Your task to perform on an android device: turn on location history Image 0: 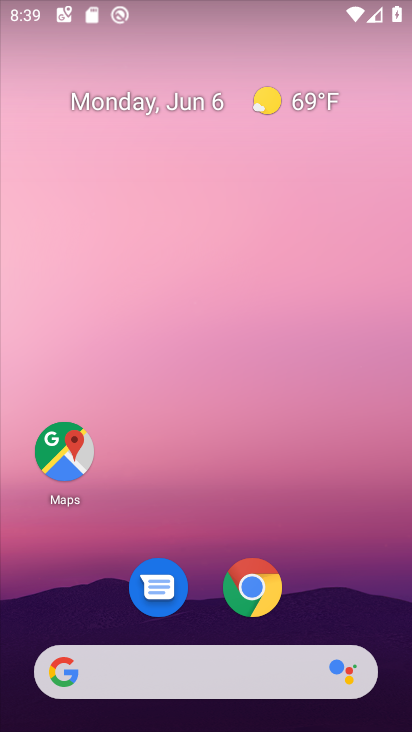
Step 0: drag from (348, 543) to (348, 221)
Your task to perform on an android device: turn on location history Image 1: 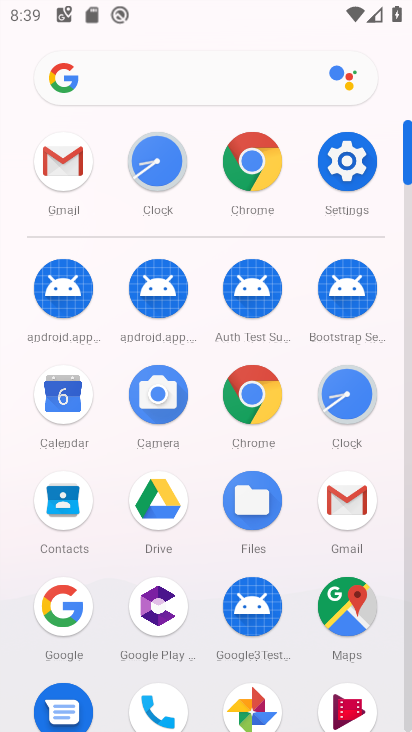
Step 1: click (330, 167)
Your task to perform on an android device: turn on location history Image 2: 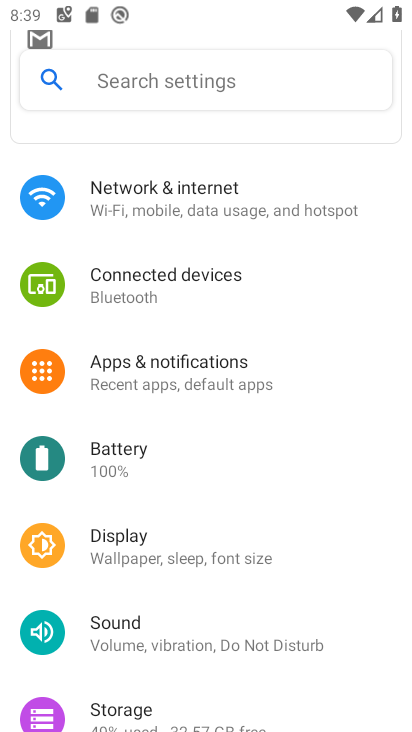
Step 2: drag from (221, 625) to (236, 307)
Your task to perform on an android device: turn on location history Image 3: 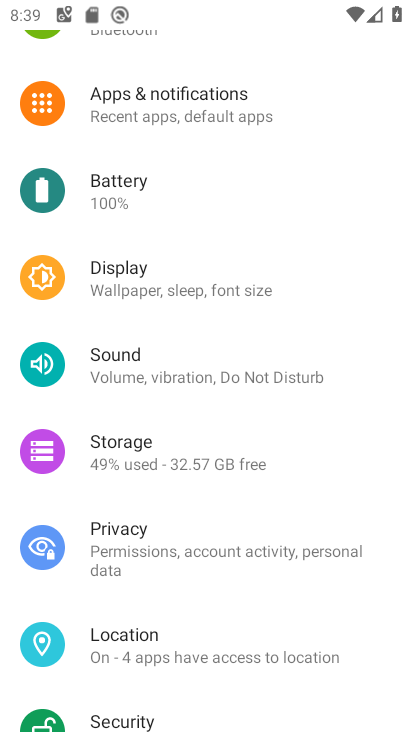
Step 3: click (182, 647)
Your task to perform on an android device: turn on location history Image 4: 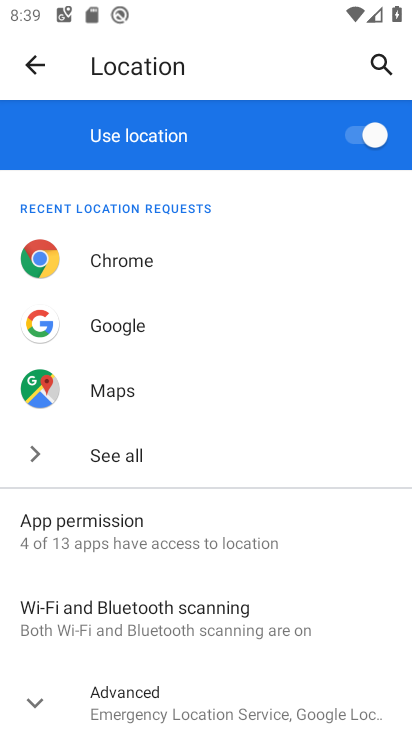
Step 4: drag from (320, 542) to (325, 246)
Your task to perform on an android device: turn on location history Image 5: 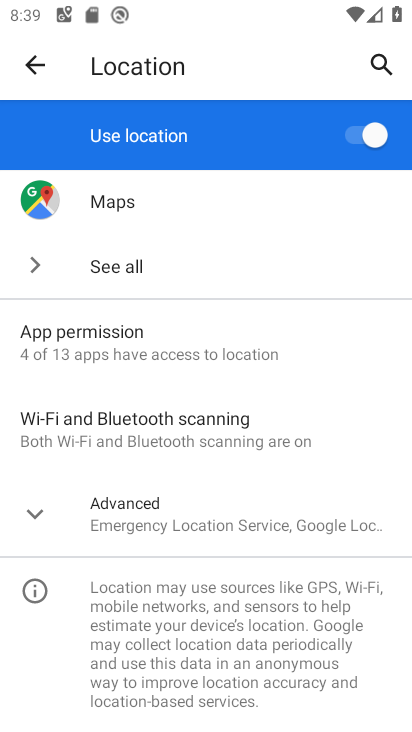
Step 5: click (252, 537)
Your task to perform on an android device: turn on location history Image 6: 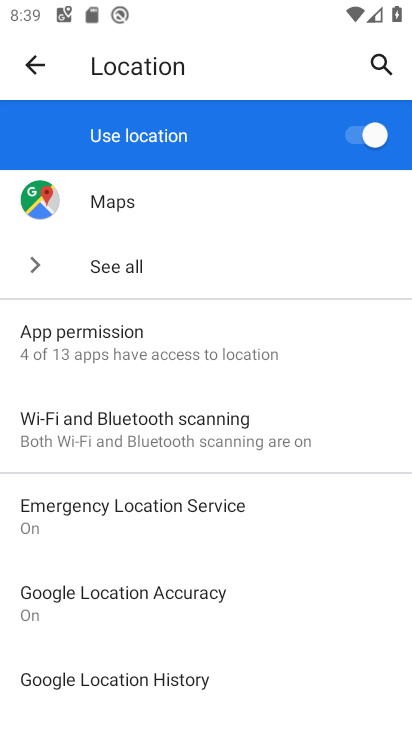
Step 6: click (181, 671)
Your task to perform on an android device: turn on location history Image 7: 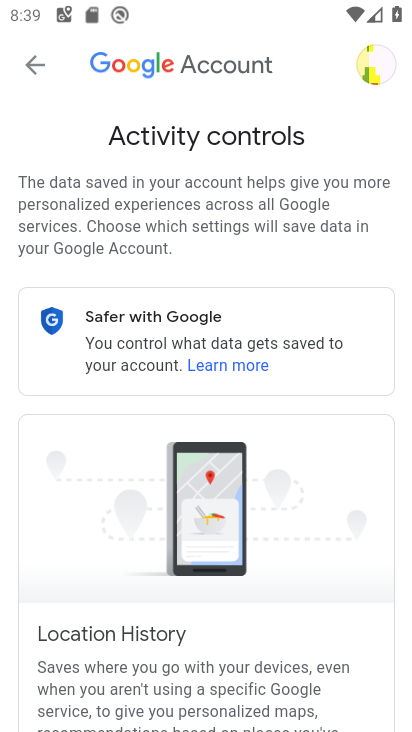
Step 7: task complete